Your task to perform on an android device: toggle location history Image 0: 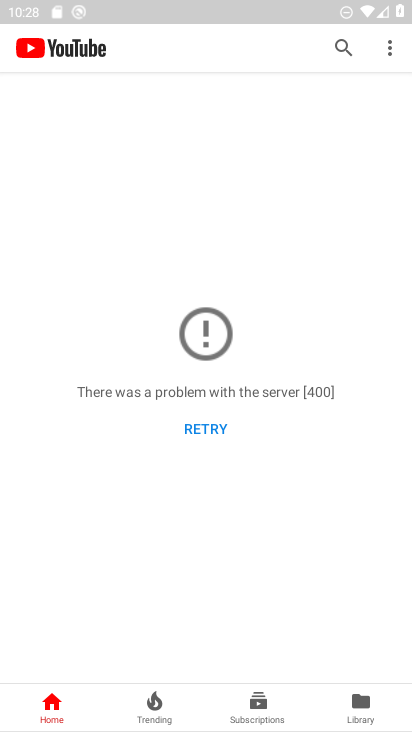
Step 0: press home button
Your task to perform on an android device: toggle location history Image 1: 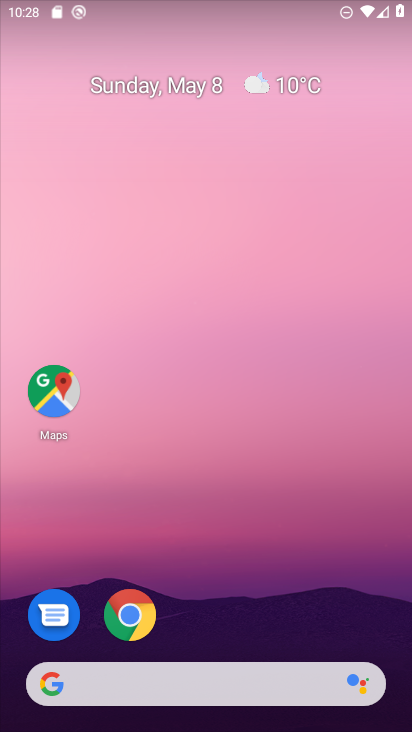
Step 1: drag from (298, 476) to (265, 84)
Your task to perform on an android device: toggle location history Image 2: 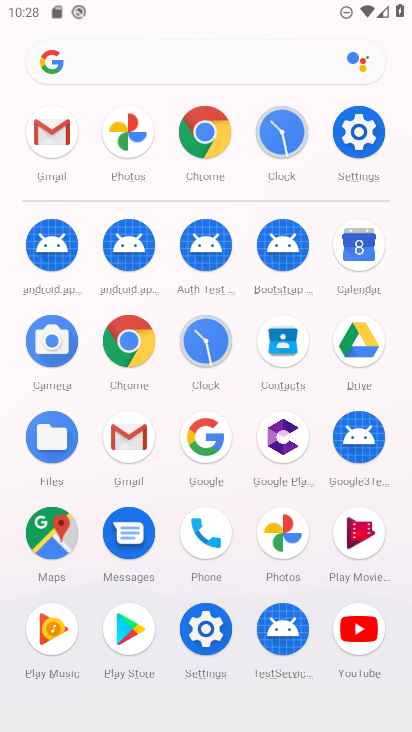
Step 2: click (355, 143)
Your task to perform on an android device: toggle location history Image 3: 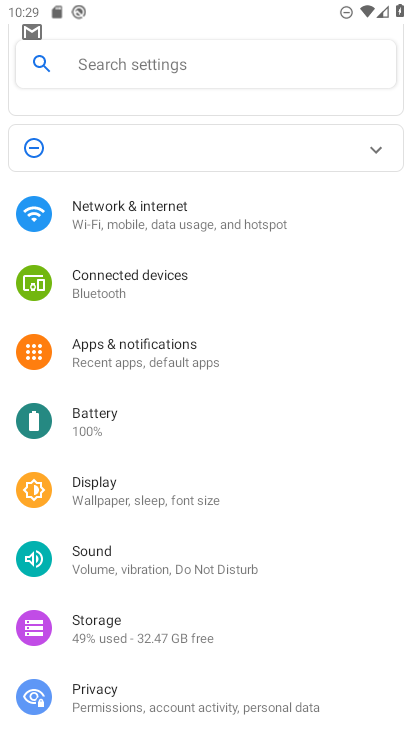
Step 3: drag from (200, 631) to (208, 171)
Your task to perform on an android device: toggle location history Image 4: 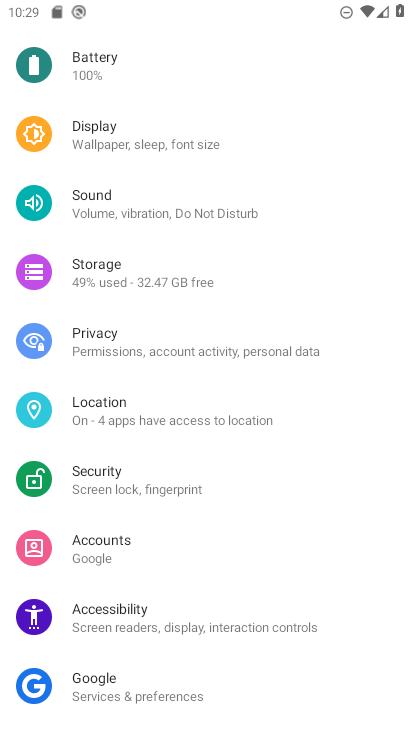
Step 4: click (165, 418)
Your task to perform on an android device: toggle location history Image 5: 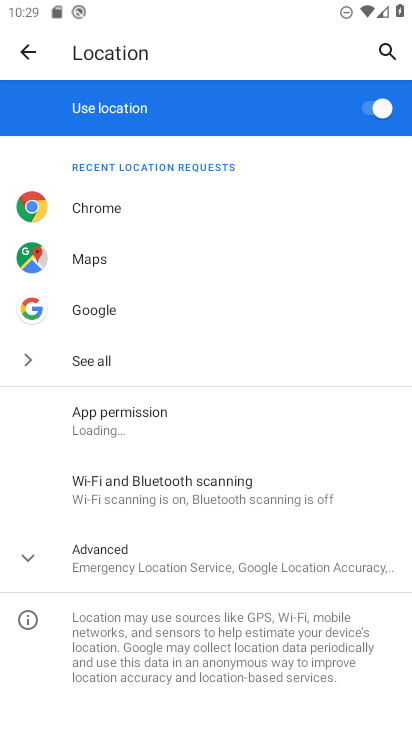
Step 5: click (155, 554)
Your task to perform on an android device: toggle location history Image 6: 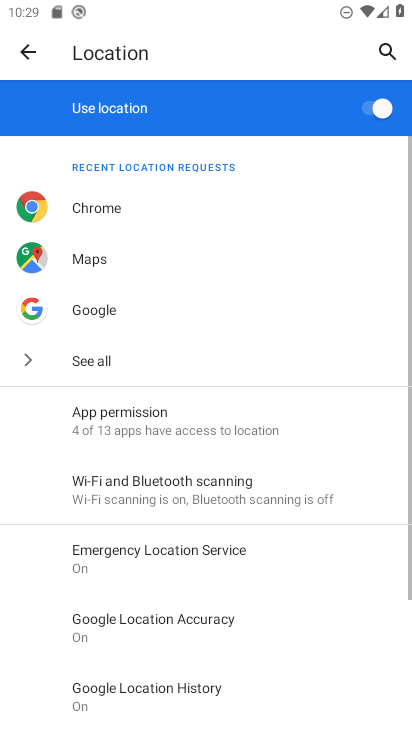
Step 6: drag from (293, 665) to (320, 275)
Your task to perform on an android device: toggle location history Image 7: 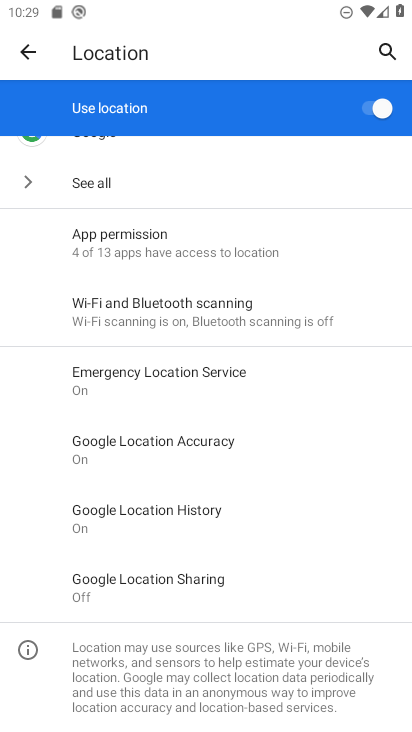
Step 7: click (198, 519)
Your task to perform on an android device: toggle location history Image 8: 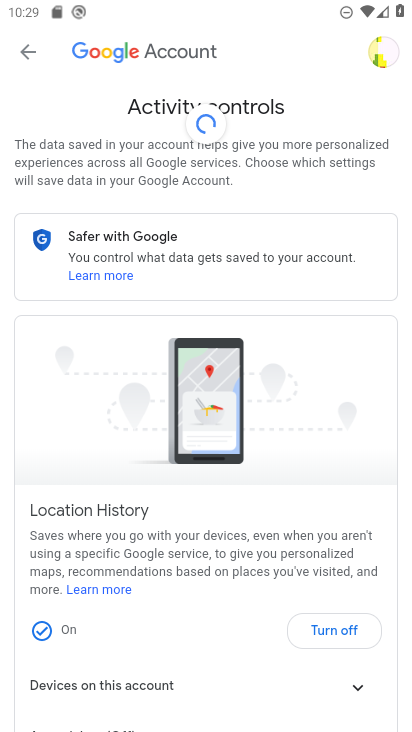
Step 8: click (329, 634)
Your task to perform on an android device: toggle location history Image 9: 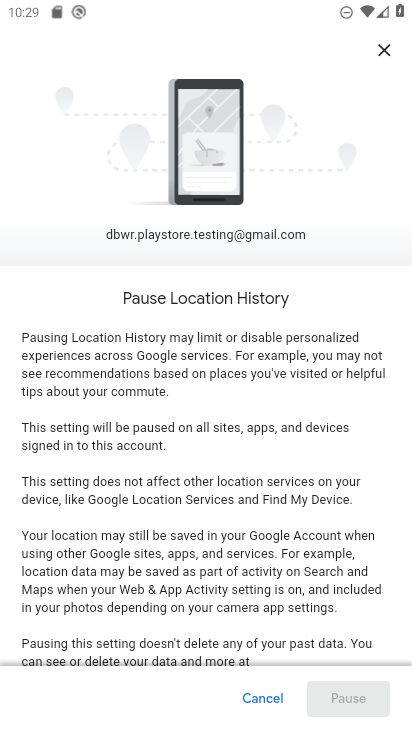
Step 9: drag from (290, 559) to (300, 79)
Your task to perform on an android device: toggle location history Image 10: 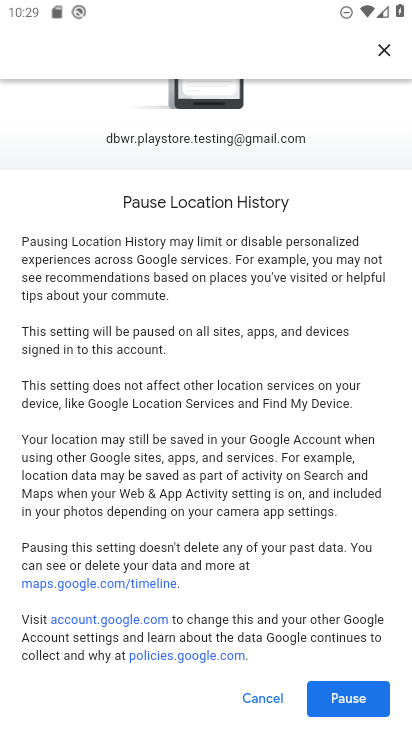
Step 10: click (359, 730)
Your task to perform on an android device: toggle location history Image 11: 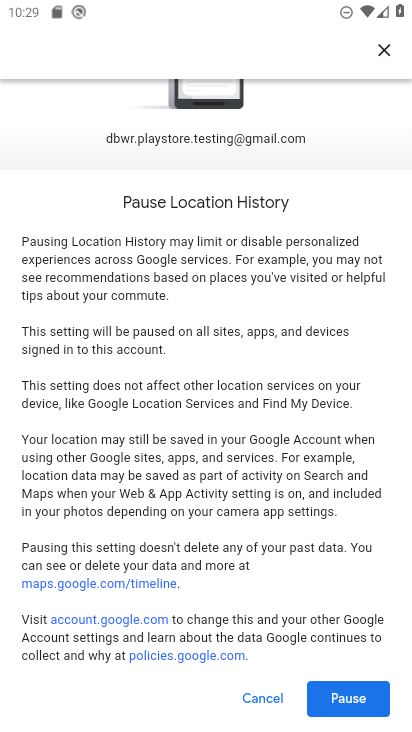
Step 11: click (364, 692)
Your task to perform on an android device: toggle location history Image 12: 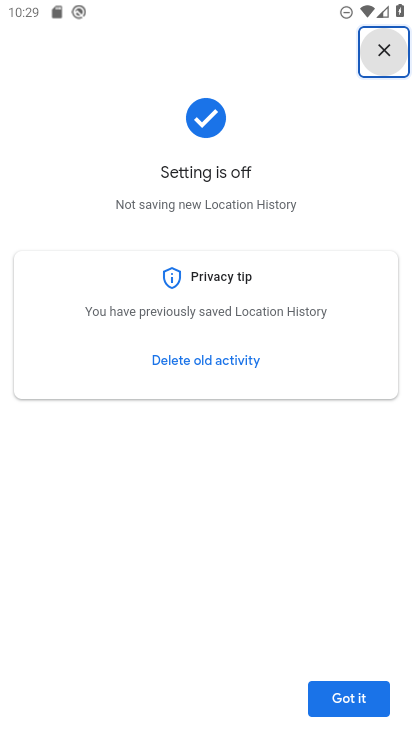
Step 12: task complete